Your task to perform on an android device: Go to Android settings Image 0: 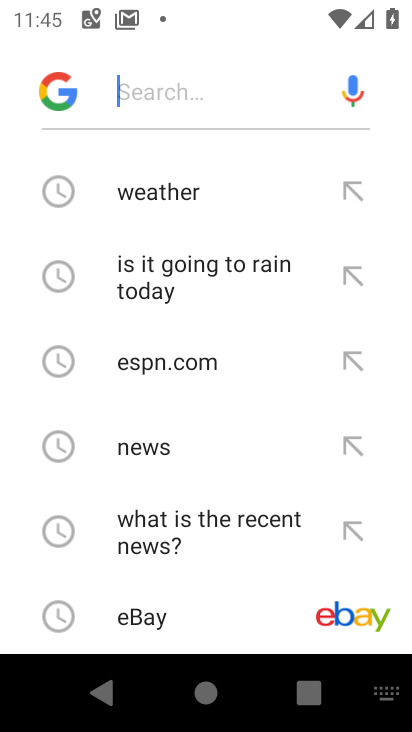
Step 0: press back button
Your task to perform on an android device: Go to Android settings Image 1: 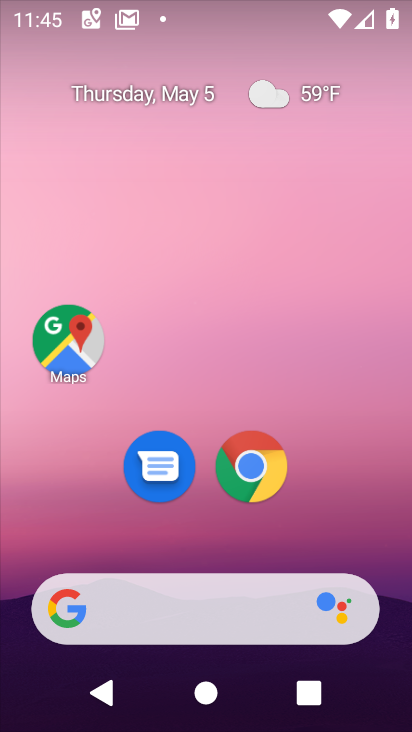
Step 1: drag from (337, 514) to (338, 160)
Your task to perform on an android device: Go to Android settings Image 2: 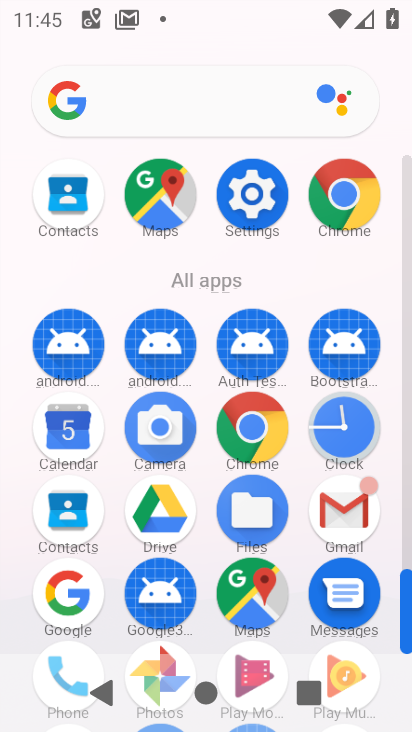
Step 2: click (264, 207)
Your task to perform on an android device: Go to Android settings Image 3: 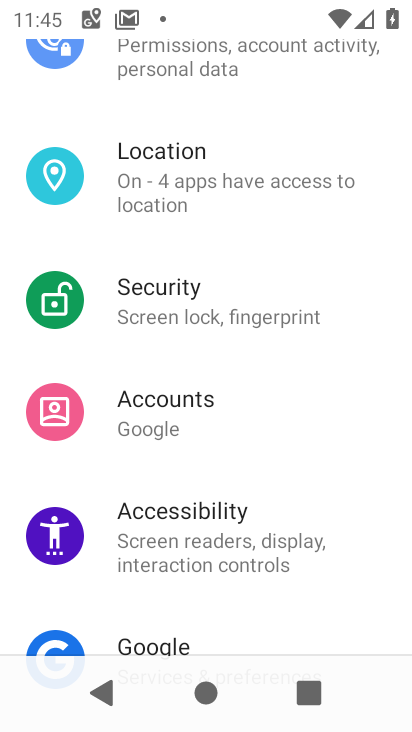
Step 3: task complete